Your task to perform on an android device: Clear all items from cart on target. Add macbook pro 13 inch to the cart on target Image 0: 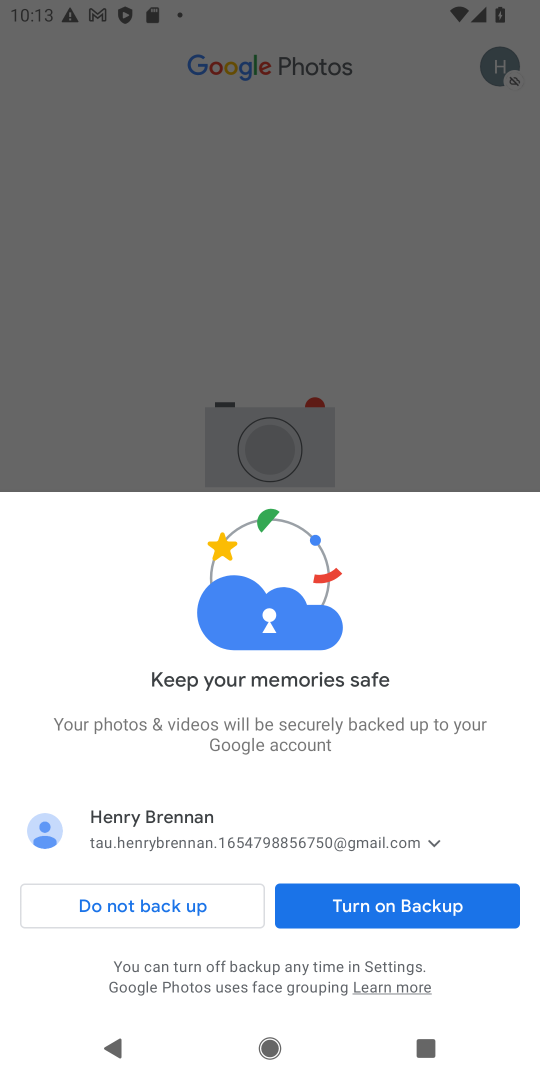
Step 0: press home button
Your task to perform on an android device: Clear all items from cart on target. Add macbook pro 13 inch to the cart on target Image 1: 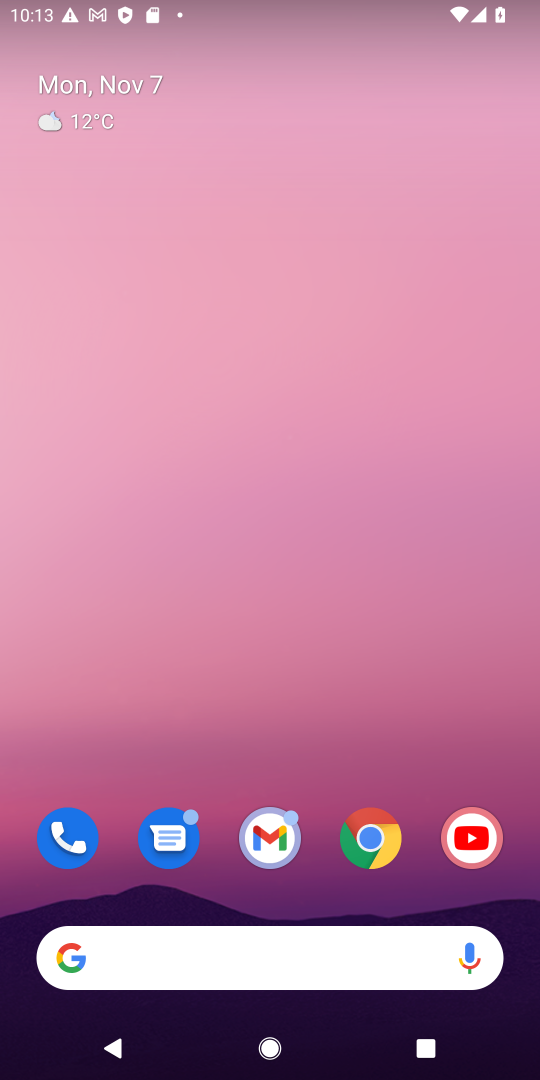
Step 1: click (364, 827)
Your task to perform on an android device: Clear all items from cart on target. Add macbook pro 13 inch to the cart on target Image 2: 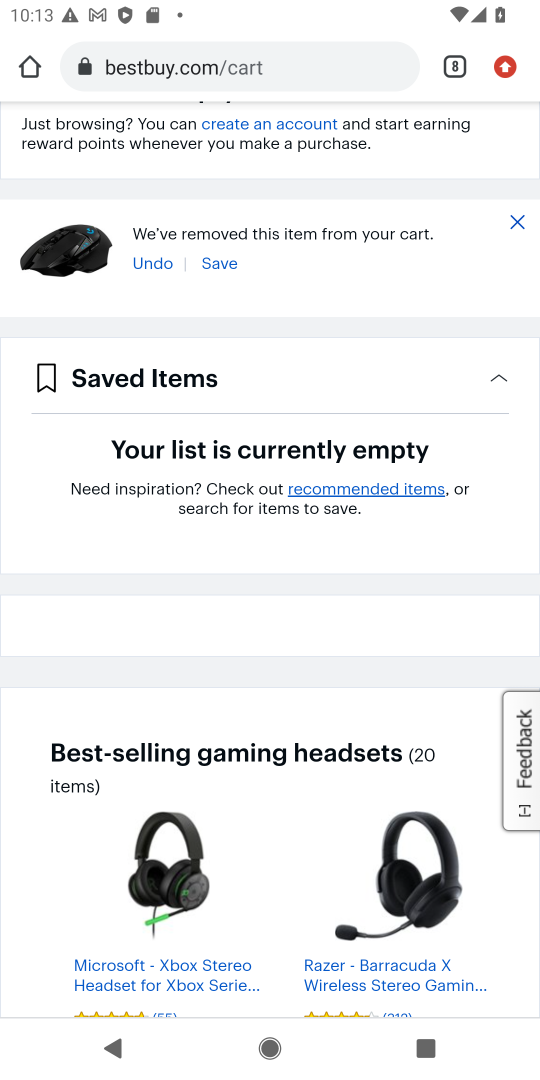
Step 2: click (458, 74)
Your task to perform on an android device: Clear all items from cart on target. Add macbook pro 13 inch to the cart on target Image 3: 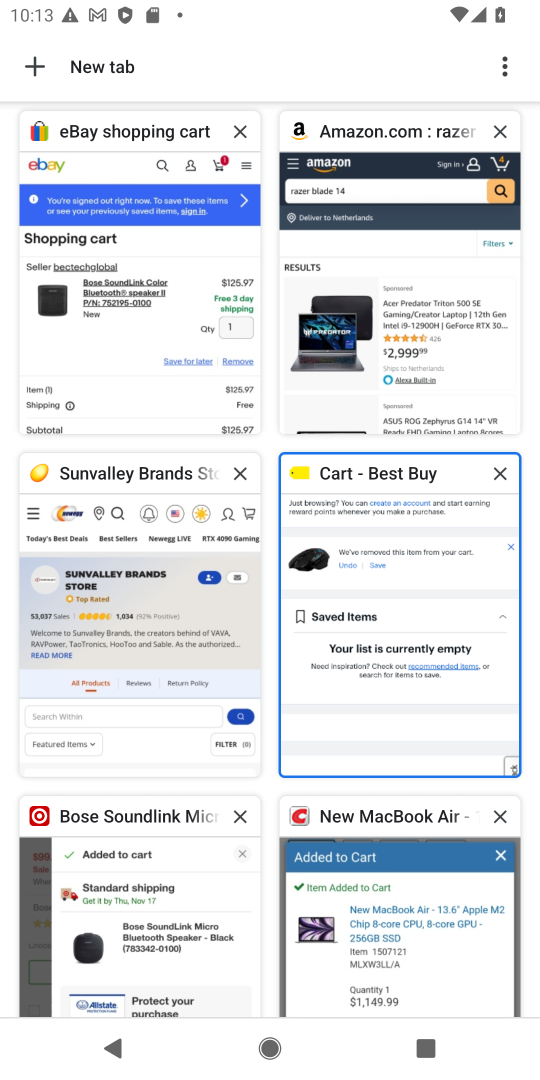
Step 3: click (102, 902)
Your task to perform on an android device: Clear all items from cart on target. Add macbook pro 13 inch to the cart on target Image 4: 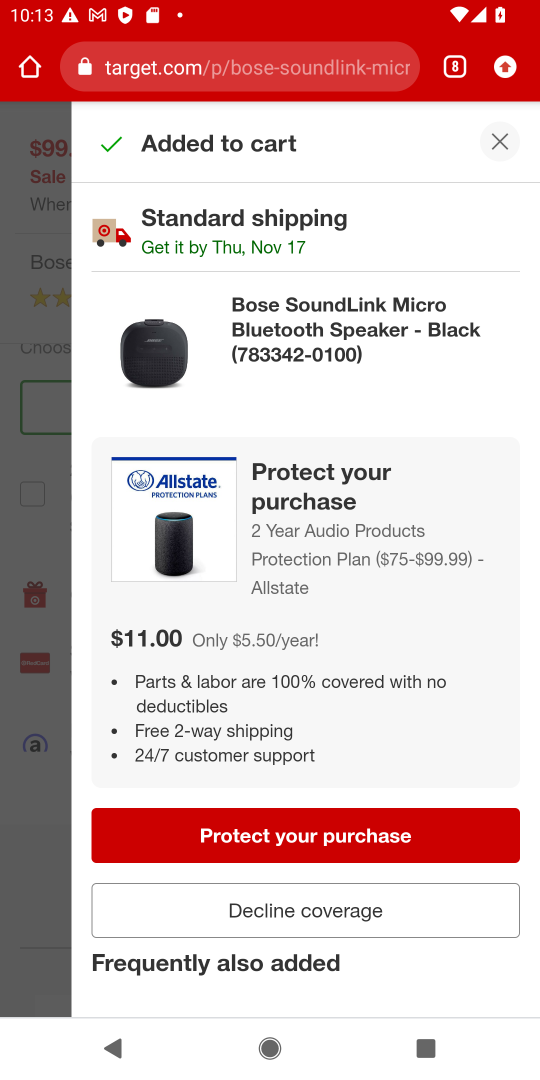
Step 4: click (328, 905)
Your task to perform on an android device: Clear all items from cart on target. Add macbook pro 13 inch to the cart on target Image 5: 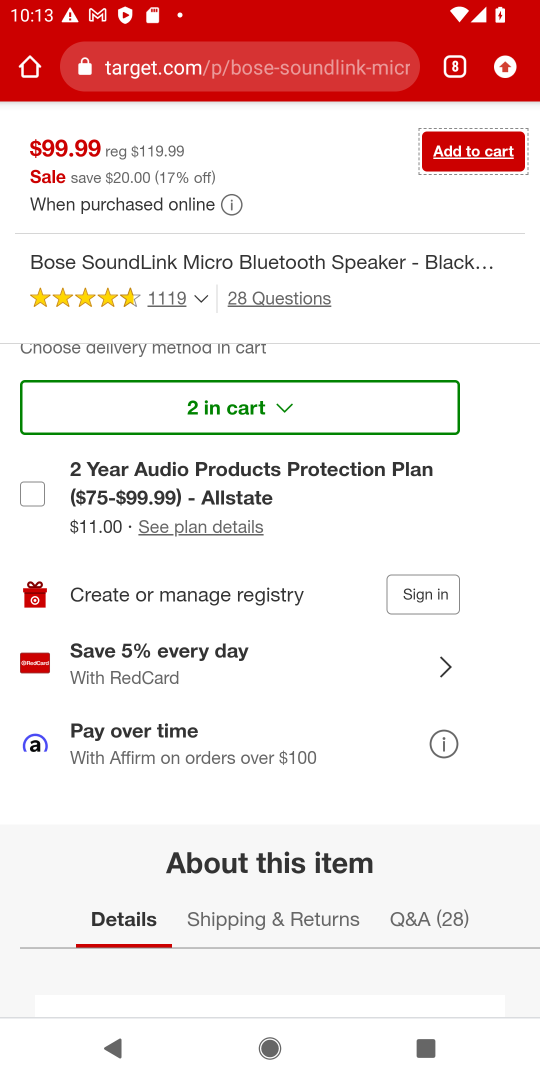
Step 5: drag from (458, 334) to (173, 1077)
Your task to perform on an android device: Clear all items from cart on target. Add macbook pro 13 inch to the cart on target Image 6: 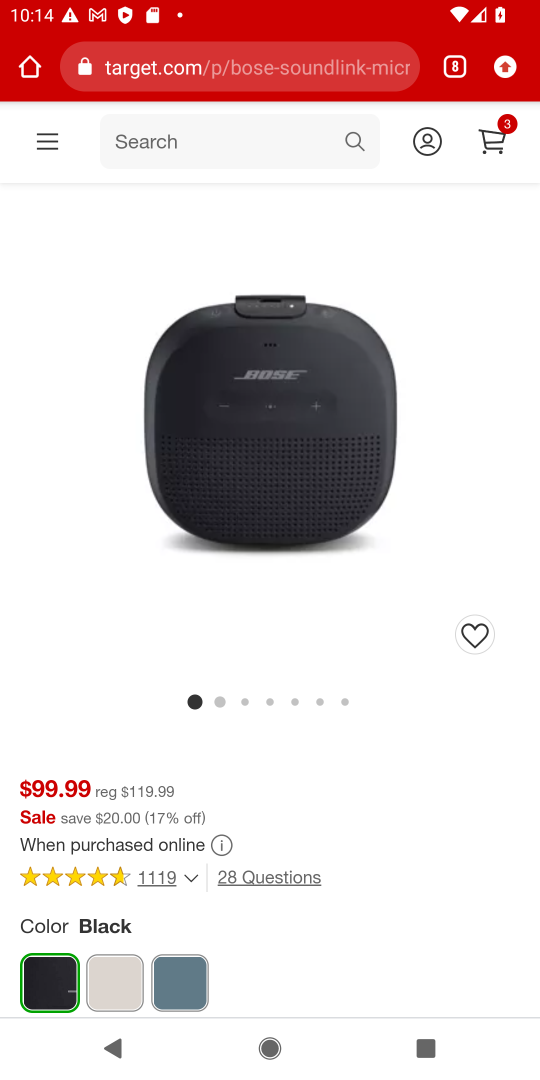
Step 6: click (497, 135)
Your task to perform on an android device: Clear all items from cart on target. Add macbook pro 13 inch to the cart on target Image 7: 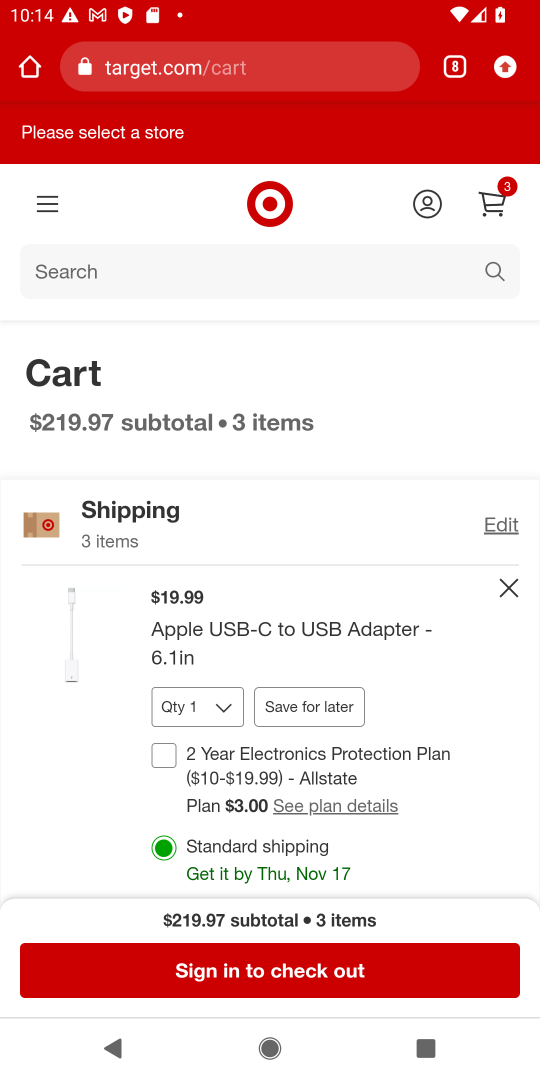
Step 7: click (501, 583)
Your task to perform on an android device: Clear all items from cart on target. Add macbook pro 13 inch to the cart on target Image 8: 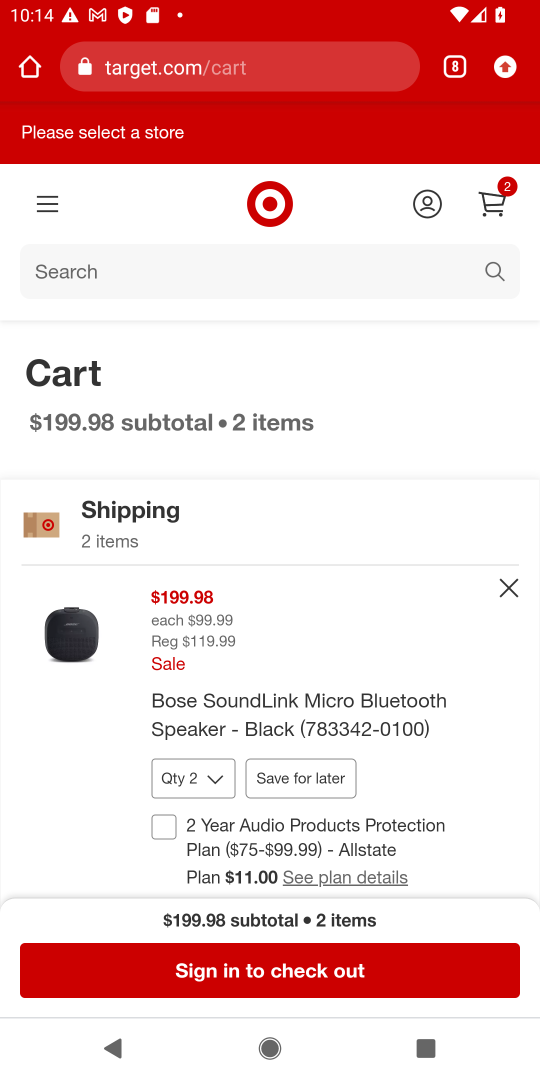
Step 8: click (501, 583)
Your task to perform on an android device: Clear all items from cart on target. Add macbook pro 13 inch to the cart on target Image 9: 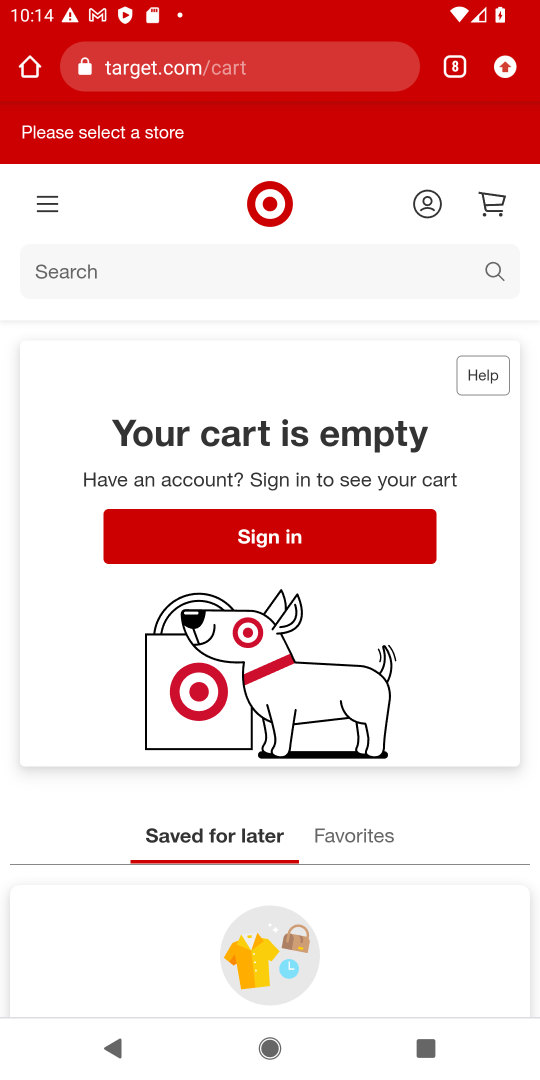
Step 9: click (153, 265)
Your task to perform on an android device: Clear all items from cart on target. Add macbook pro 13 inch to the cart on target Image 10: 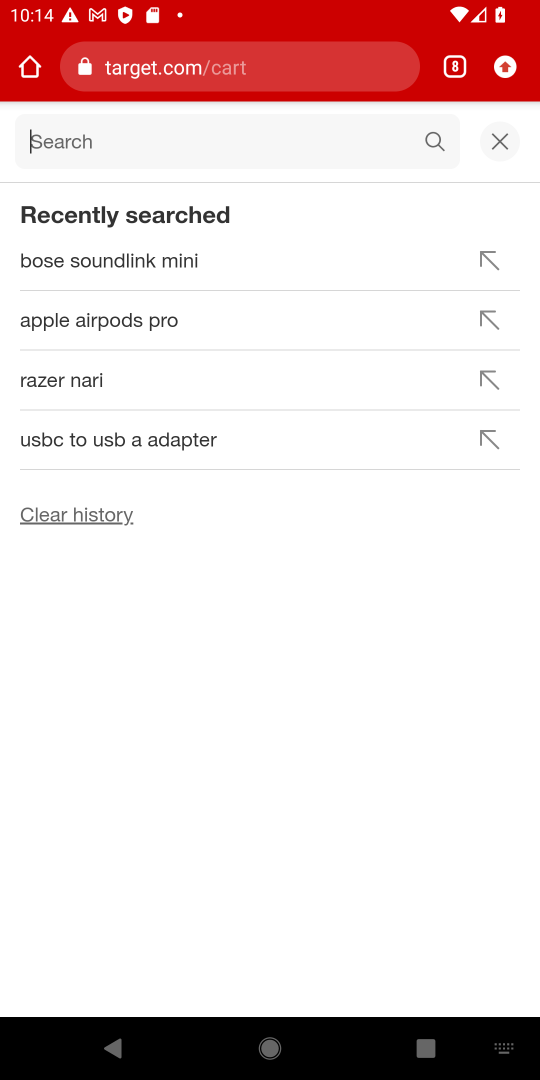
Step 10: type "macbook pro 13"
Your task to perform on an android device: Clear all items from cart on target. Add macbook pro 13 inch to the cart on target Image 11: 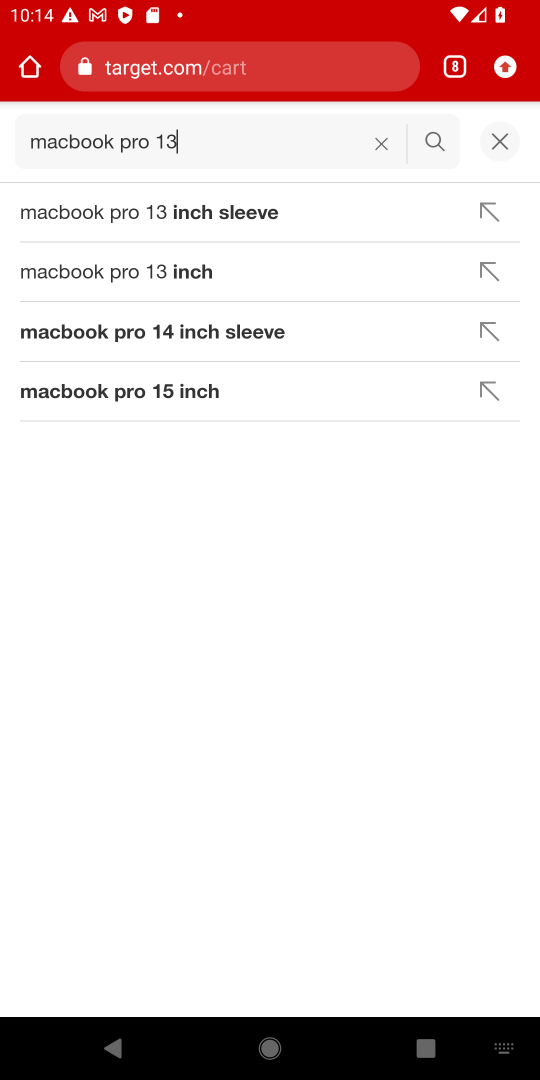
Step 11: click (183, 265)
Your task to perform on an android device: Clear all items from cart on target. Add macbook pro 13 inch to the cart on target Image 12: 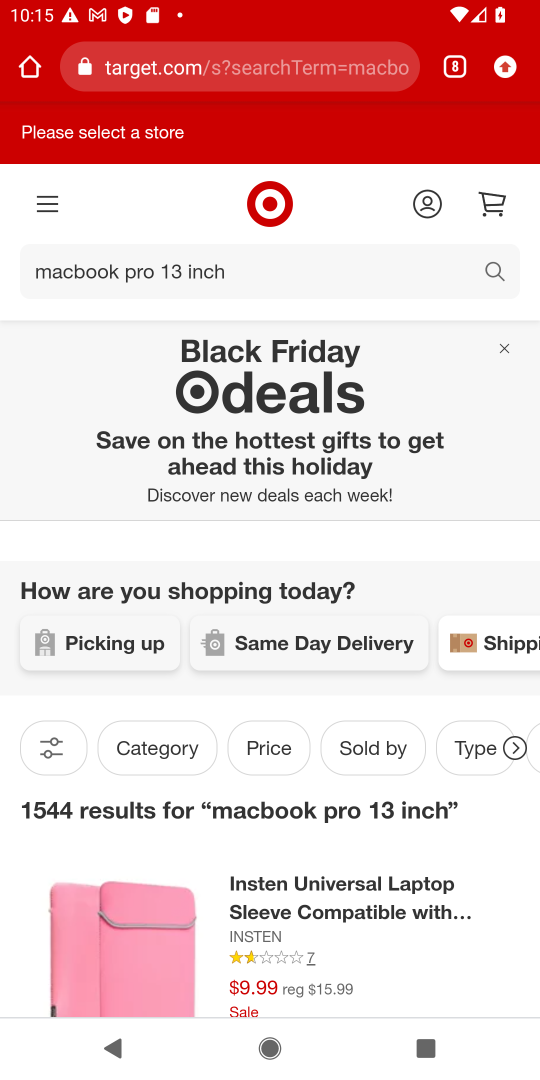
Step 12: drag from (371, 928) to (420, 312)
Your task to perform on an android device: Clear all items from cart on target. Add macbook pro 13 inch to the cart on target Image 13: 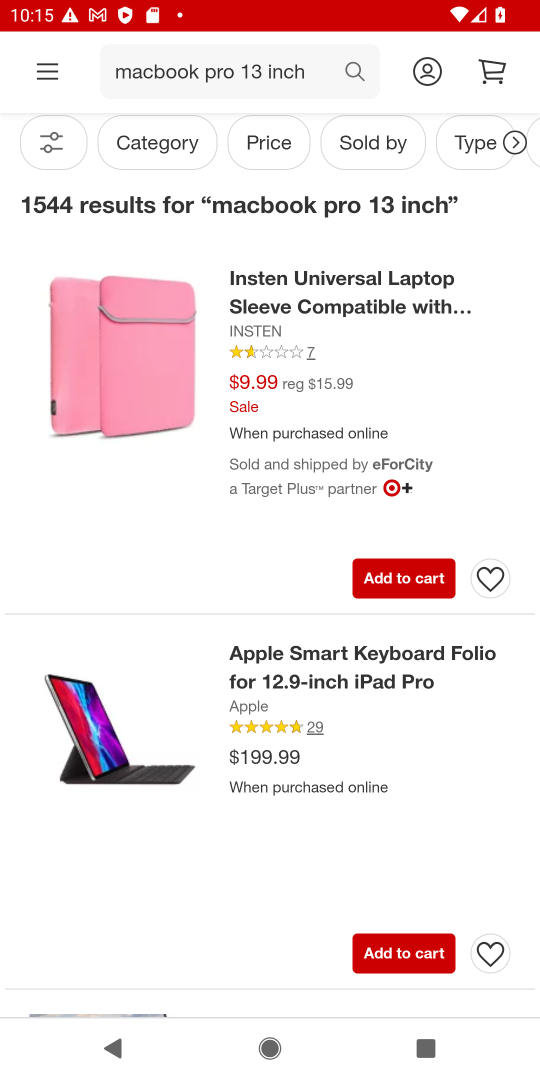
Step 13: click (341, 659)
Your task to perform on an android device: Clear all items from cart on target. Add macbook pro 13 inch to the cart on target Image 14: 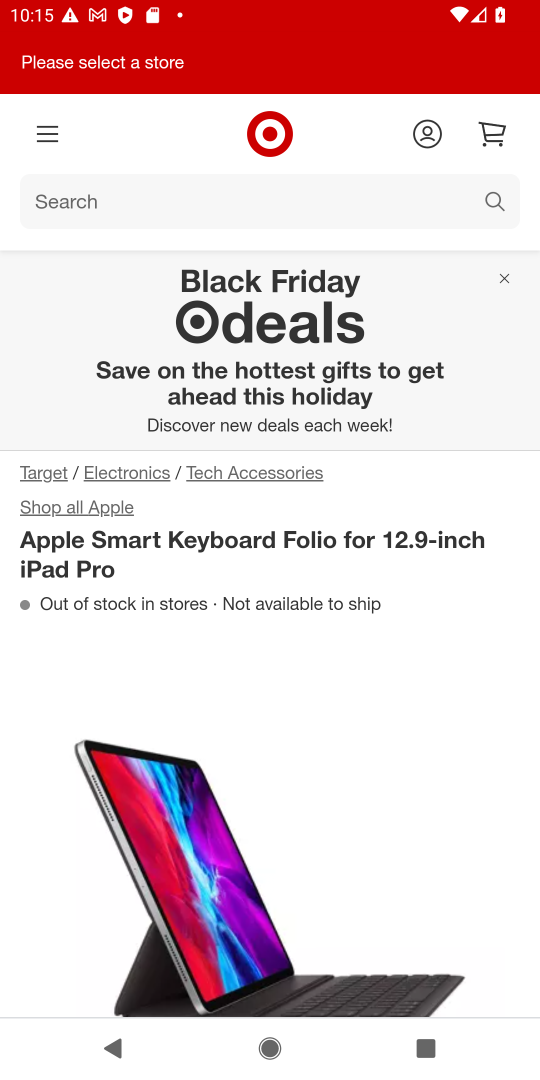
Step 14: drag from (378, 827) to (468, 237)
Your task to perform on an android device: Clear all items from cart on target. Add macbook pro 13 inch to the cart on target Image 15: 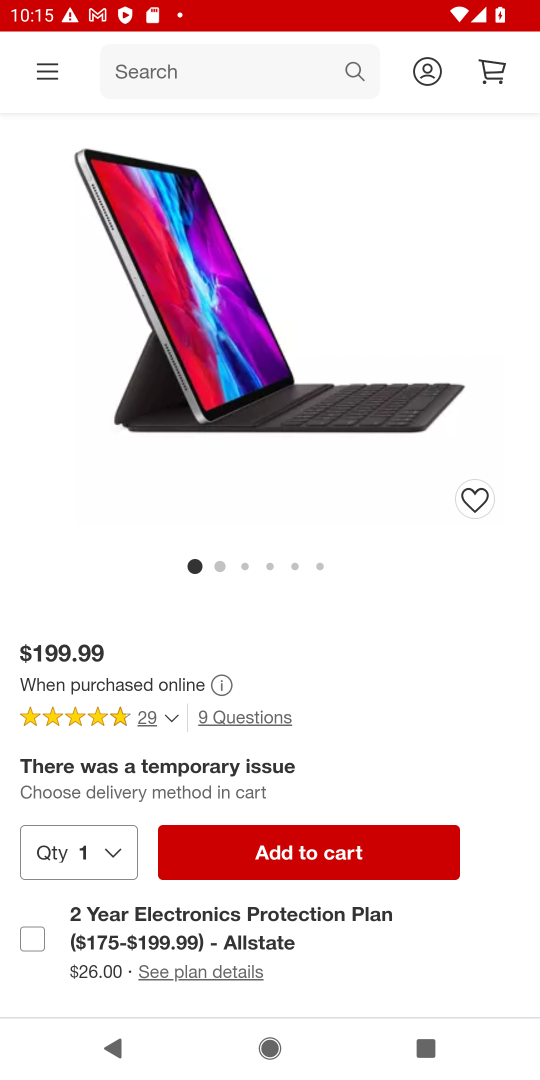
Step 15: click (353, 847)
Your task to perform on an android device: Clear all items from cart on target. Add macbook pro 13 inch to the cart on target Image 16: 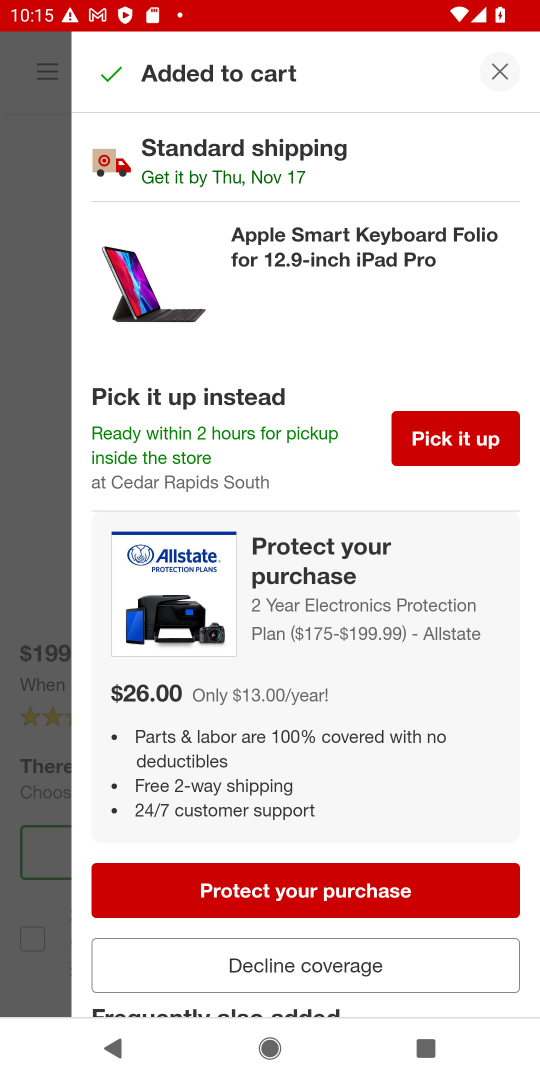
Step 16: task complete